Your task to perform on an android device: Open Yahoo.com Image 0: 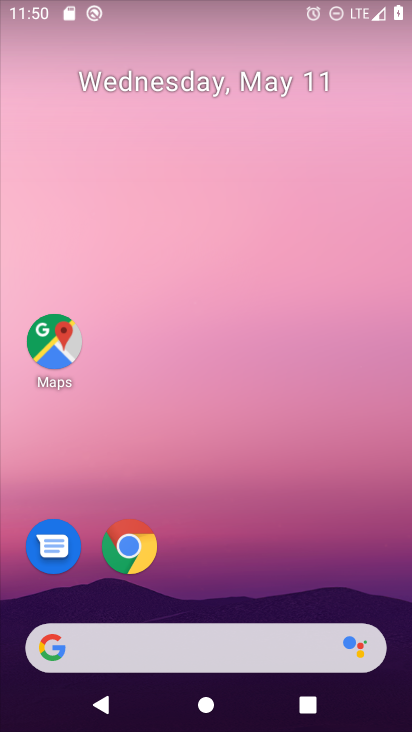
Step 0: drag from (376, 553) to (265, 96)
Your task to perform on an android device: Open Yahoo.com Image 1: 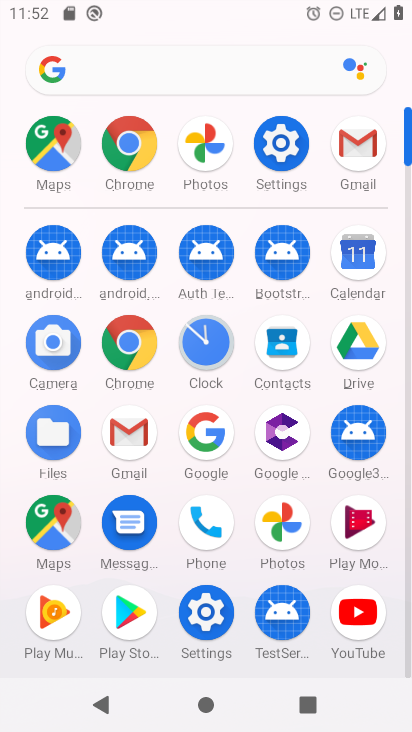
Step 1: click (147, 337)
Your task to perform on an android device: Open Yahoo.com Image 2: 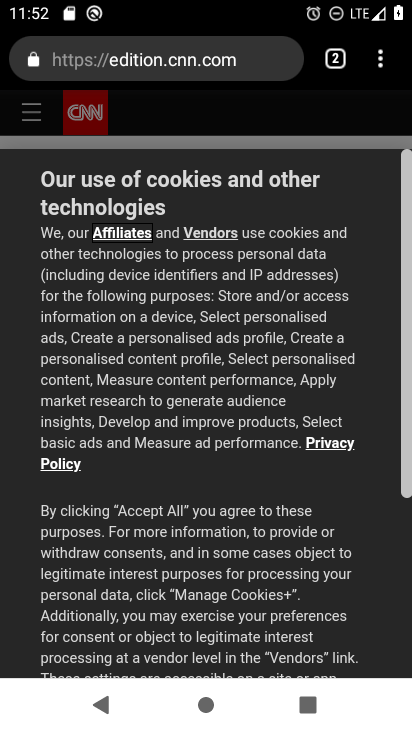
Step 2: press back button
Your task to perform on an android device: Open Yahoo.com Image 3: 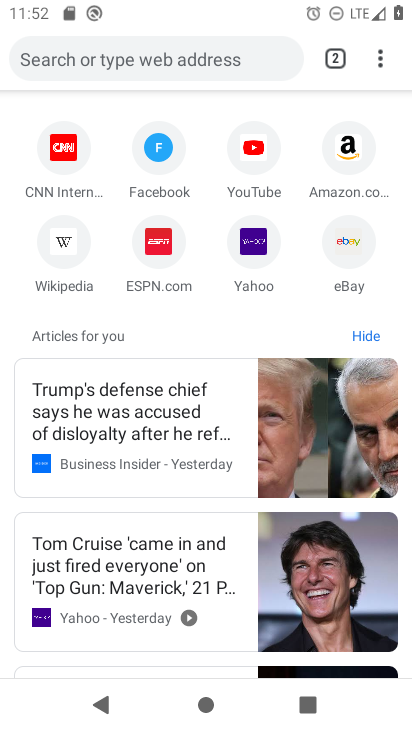
Step 3: click (254, 244)
Your task to perform on an android device: Open Yahoo.com Image 4: 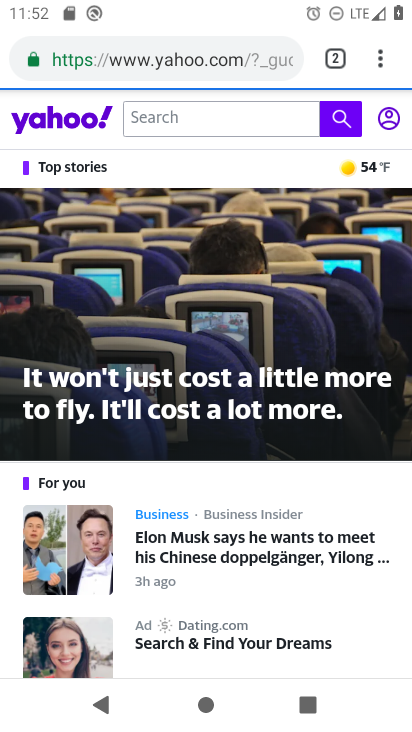
Step 4: task complete